Your task to perform on an android device: change text size in settings app Image 0: 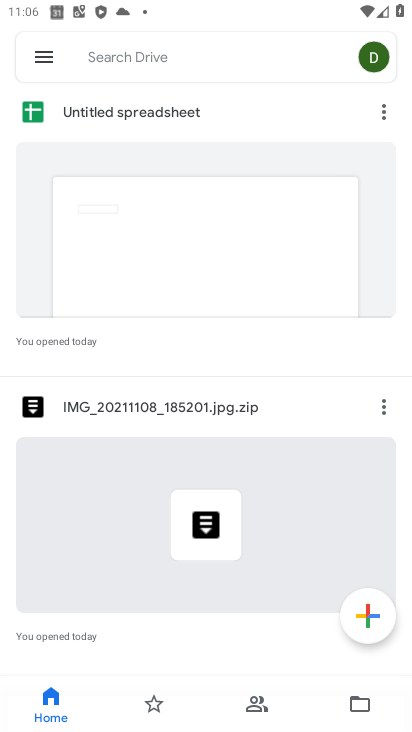
Step 0: press home button
Your task to perform on an android device: change text size in settings app Image 1: 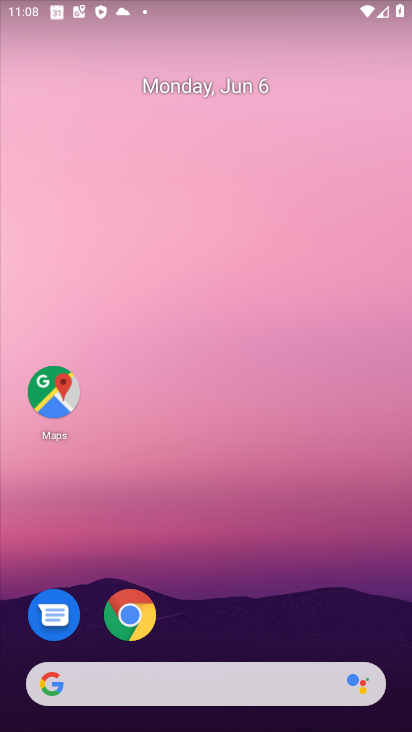
Step 1: drag from (301, 606) to (290, 151)
Your task to perform on an android device: change text size in settings app Image 2: 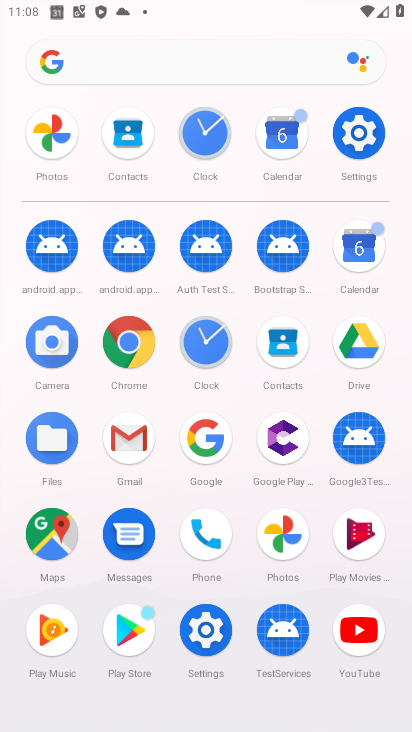
Step 2: click (355, 153)
Your task to perform on an android device: change text size in settings app Image 3: 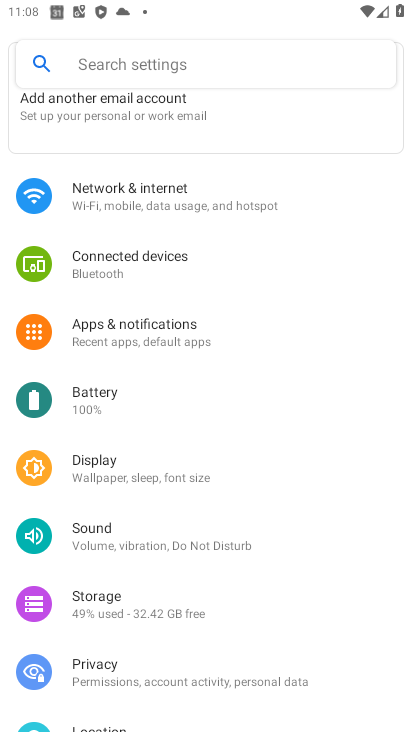
Step 3: drag from (163, 621) to (168, 289)
Your task to perform on an android device: change text size in settings app Image 4: 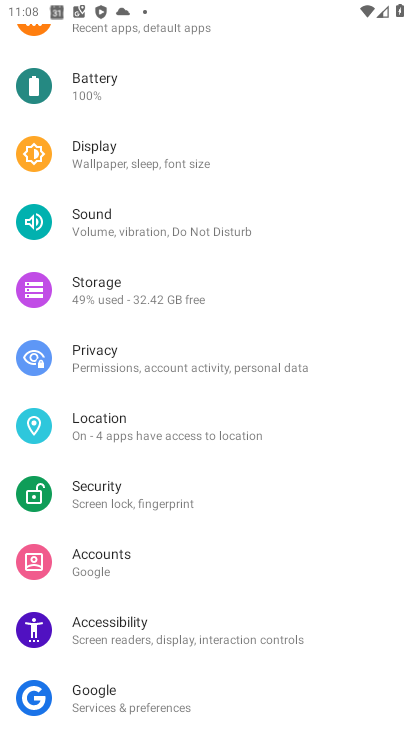
Step 4: click (142, 175)
Your task to perform on an android device: change text size in settings app Image 5: 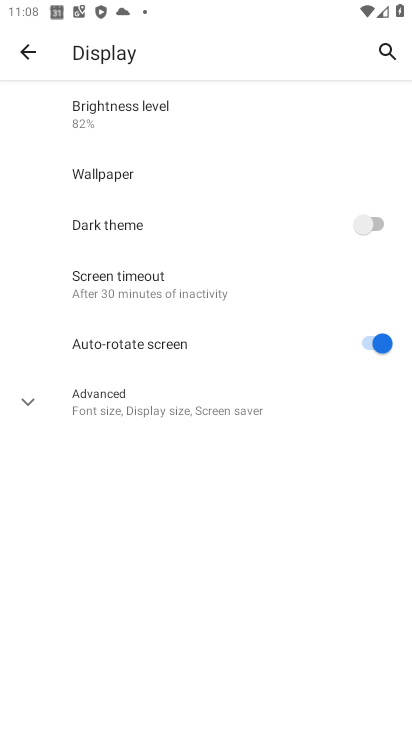
Step 5: click (195, 394)
Your task to perform on an android device: change text size in settings app Image 6: 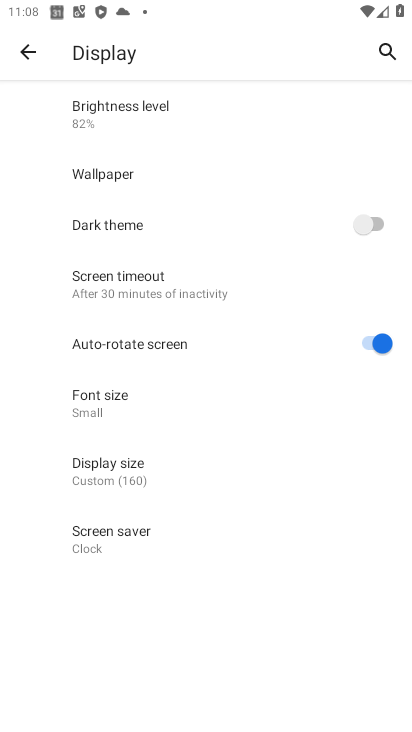
Step 6: click (173, 310)
Your task to perform on an android device: change text size in settings app Image 7: 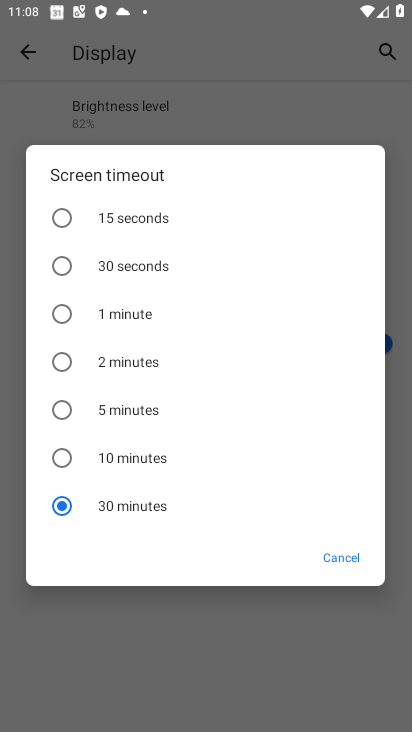
Step 7: click (172, 380)
Your task to perform on an android device: change text size in settings app Image 8: 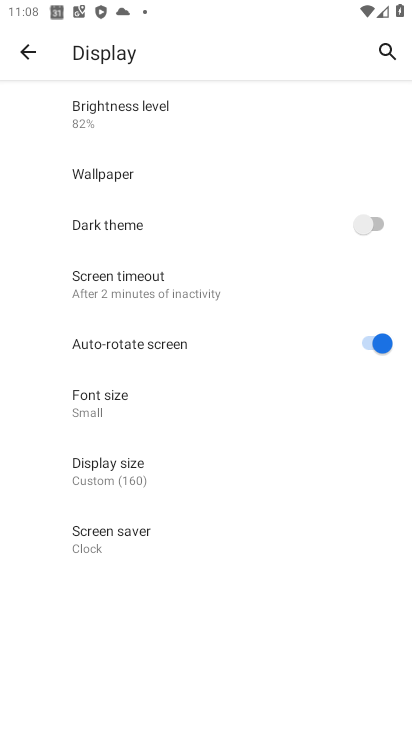
Step 8: task complete